Your task to perform on an android device: Search for Mexican restaurants on Maps Image 0: 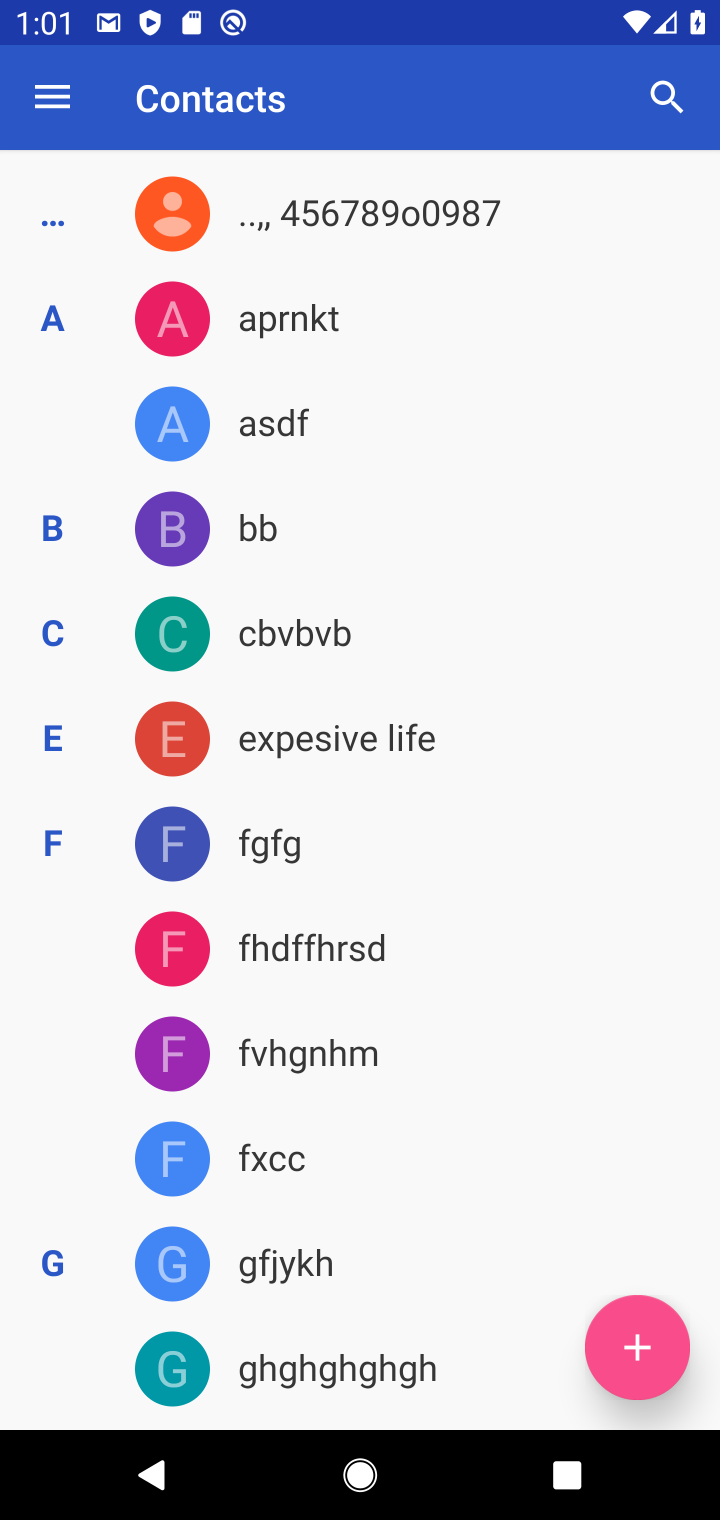
Step 0: press back button
Your task to perform on an android device: Search for Mexican restaurants on Maps Image 1: 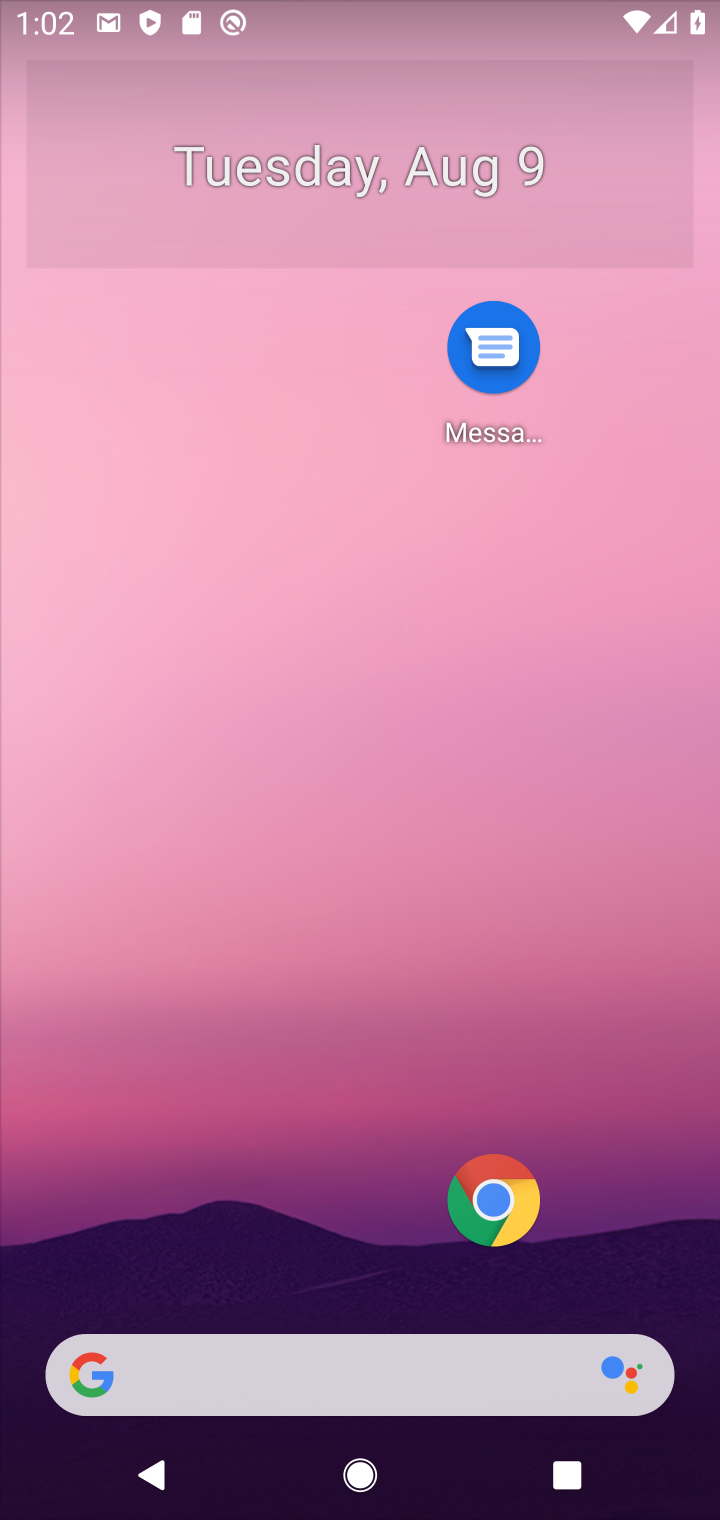
Step 1: drag from (342, 839) to (415, 267)
Your task to perform on an android device: Search for Mexican restaurants on Maps Image 2: 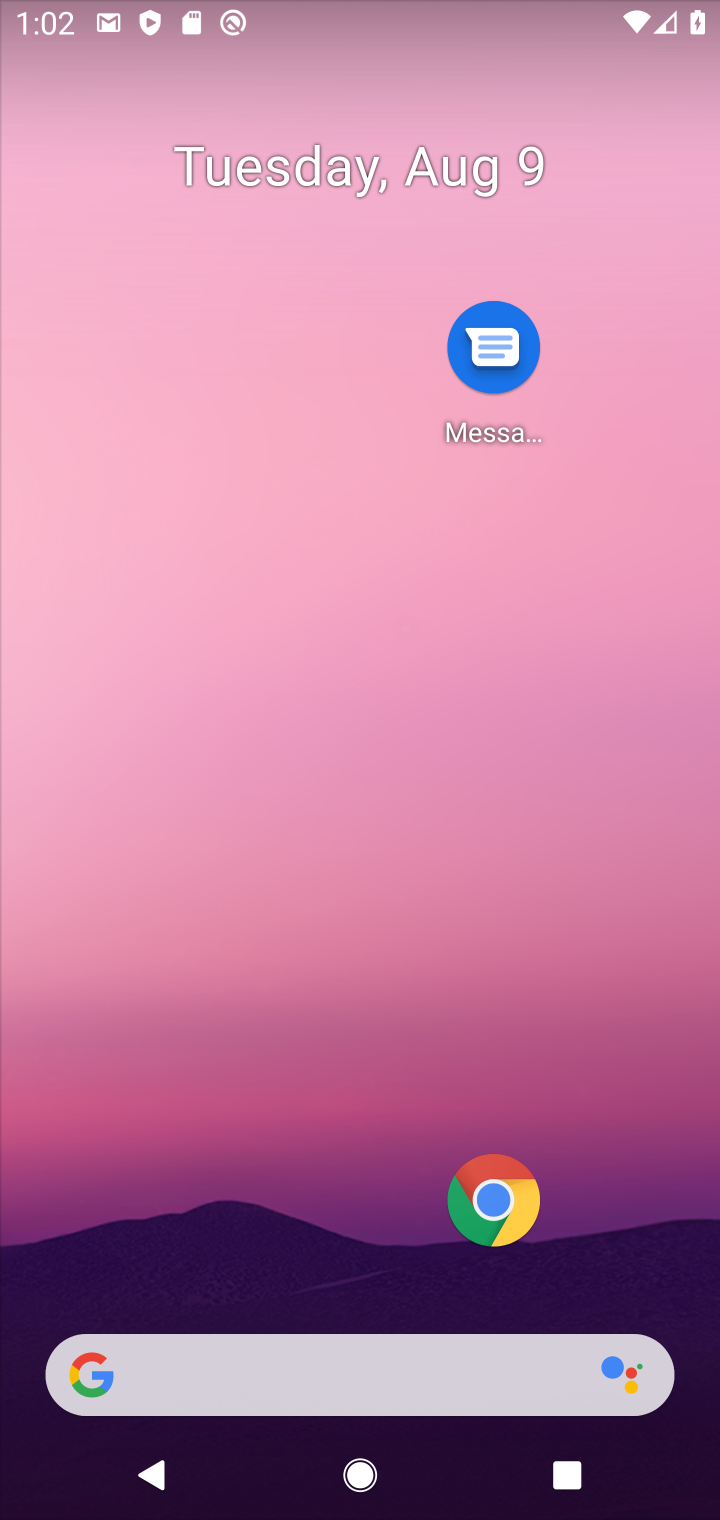
Step 2: drag from (205, 1263) to (321, 208)
Your task to perform on an android device: Search for Mexican restaurants on Maps Image 3: 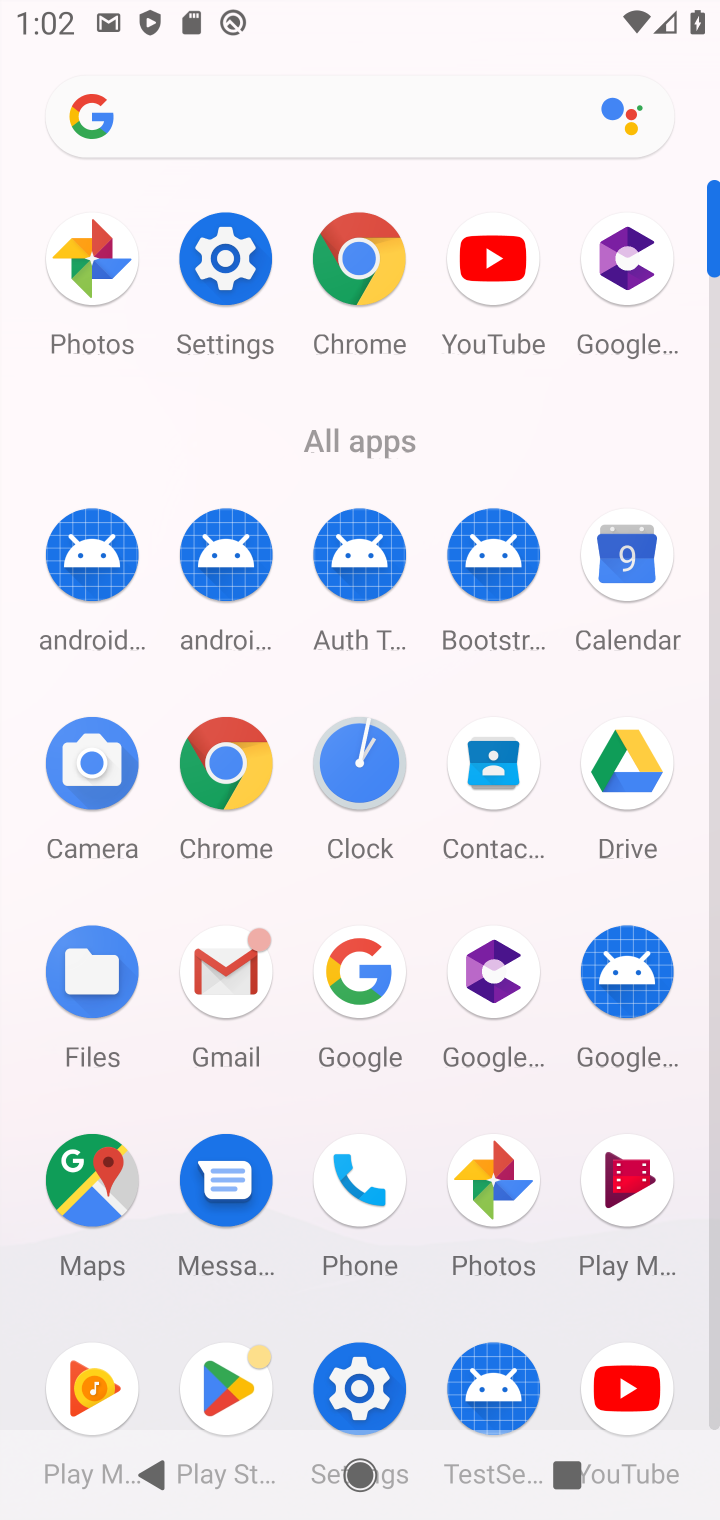
Step 3: click (99, 1161)
Your task to perform on an android device: Search for Mexican restaurants on Maps Image 4: 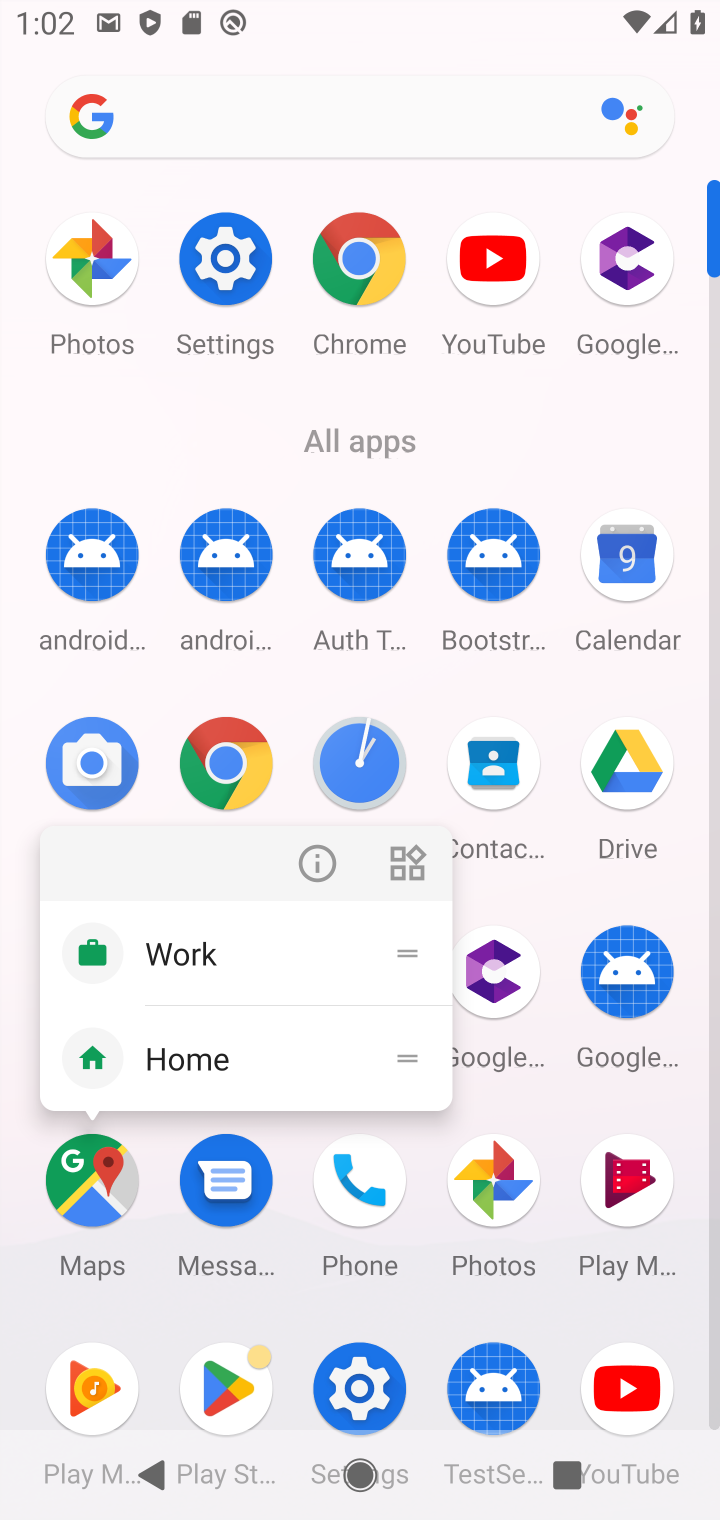
Step 4: click (99, 1188)
Your task to perform on an android device: Search for Mexican restaurants on Maps Image 5: 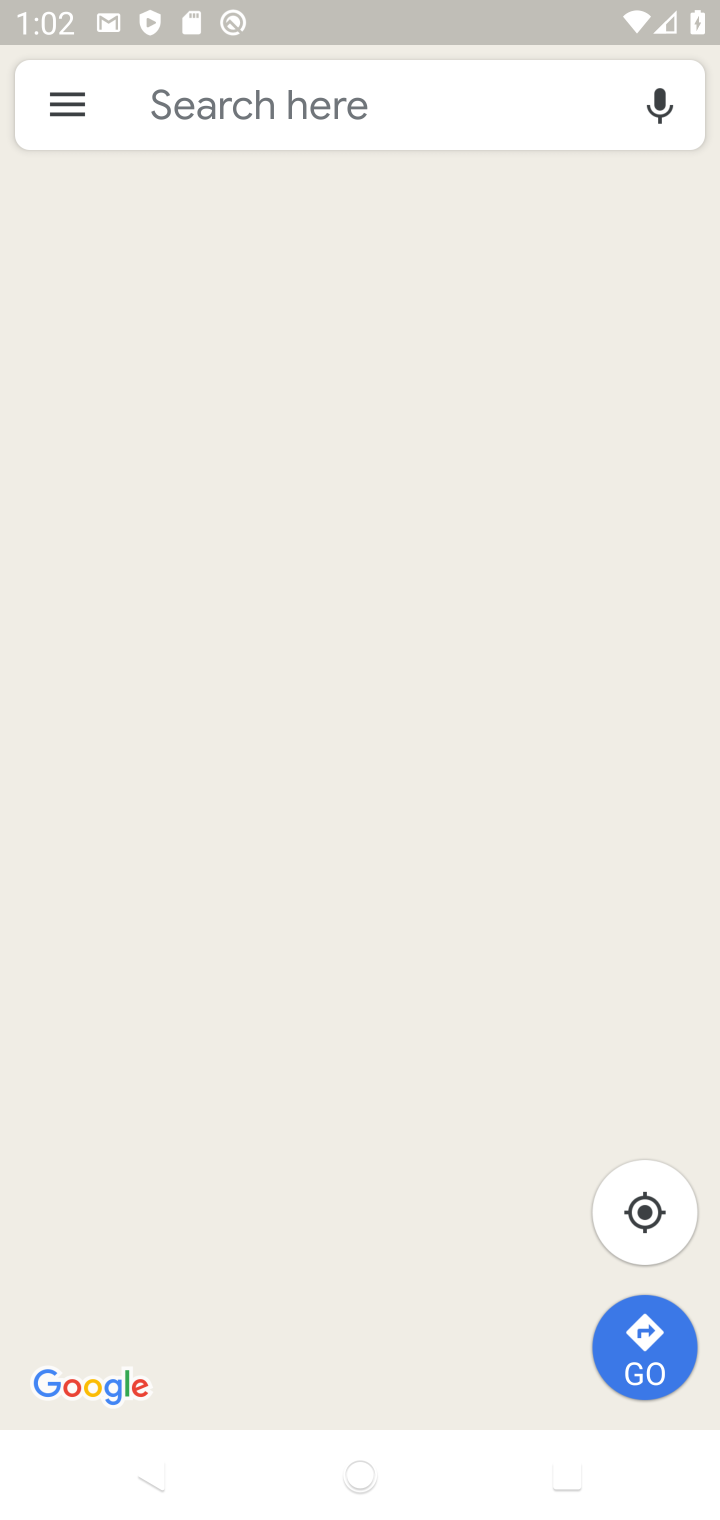
Step 5: click (241, 100)
Your task to perform on an android device: Search for Mexican restaurants on Maps Image 6: 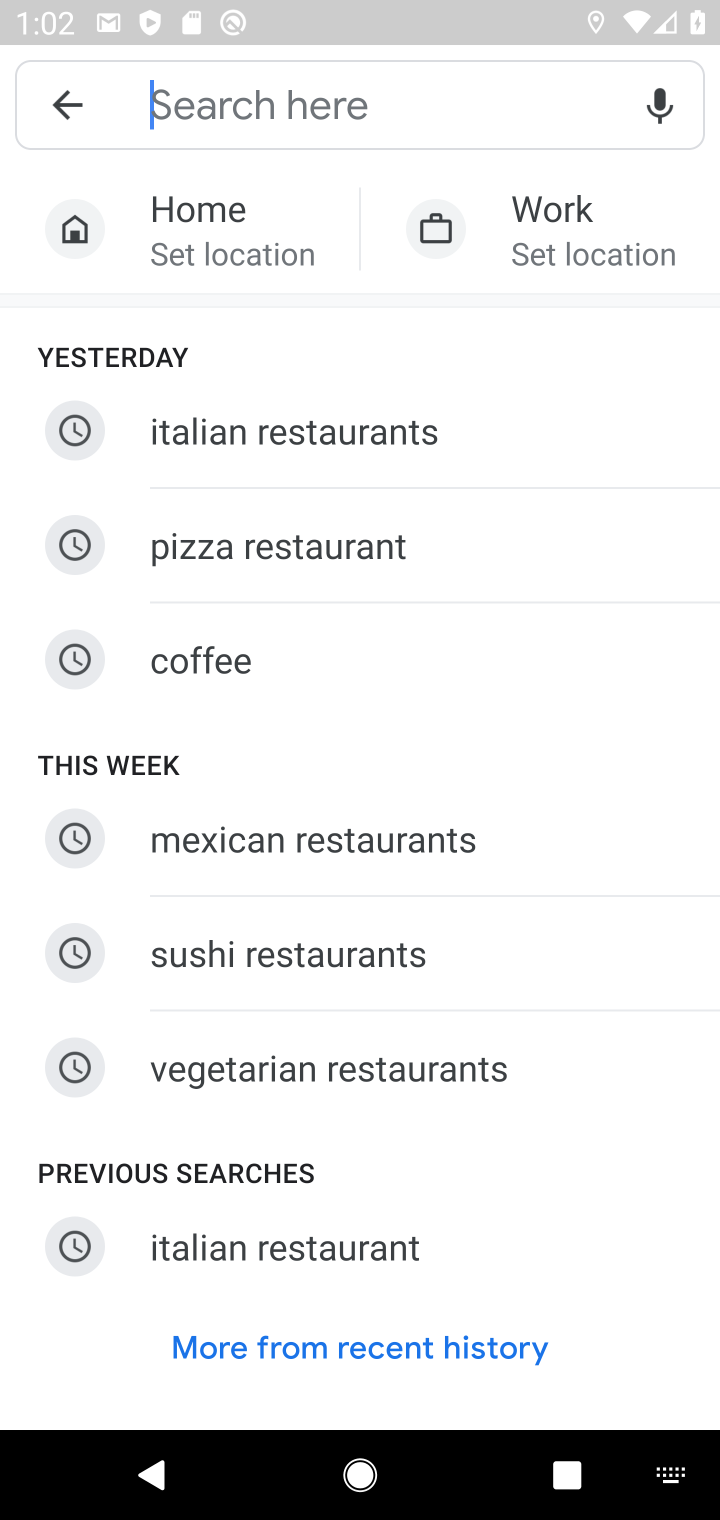
Step 6: type "mexican "
Your task to perform on an android device: Search for Mexican restaurants on Maps Image 7: 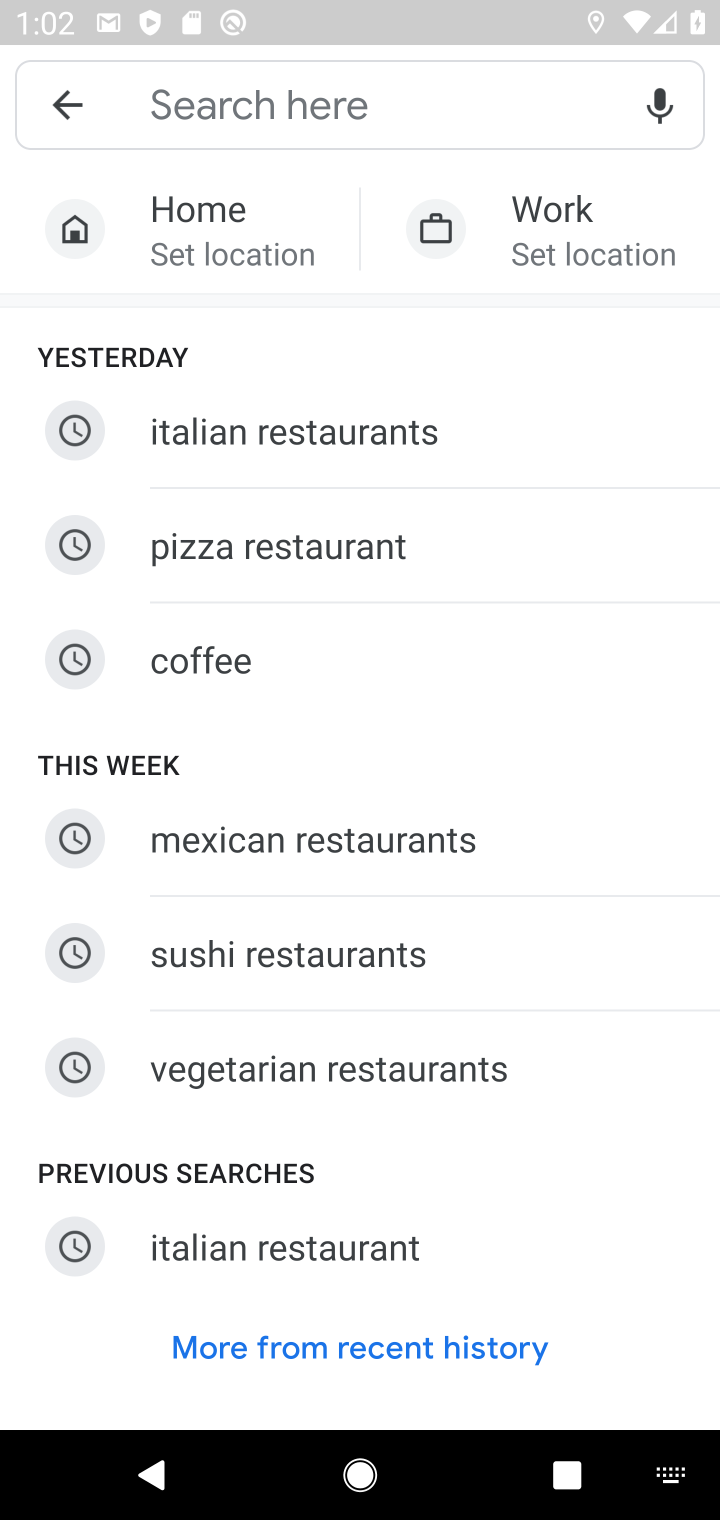
Step 7: click (257, 830)
Your task to perform on an android device: Search for Mexican restaurants on Maps Image 8: 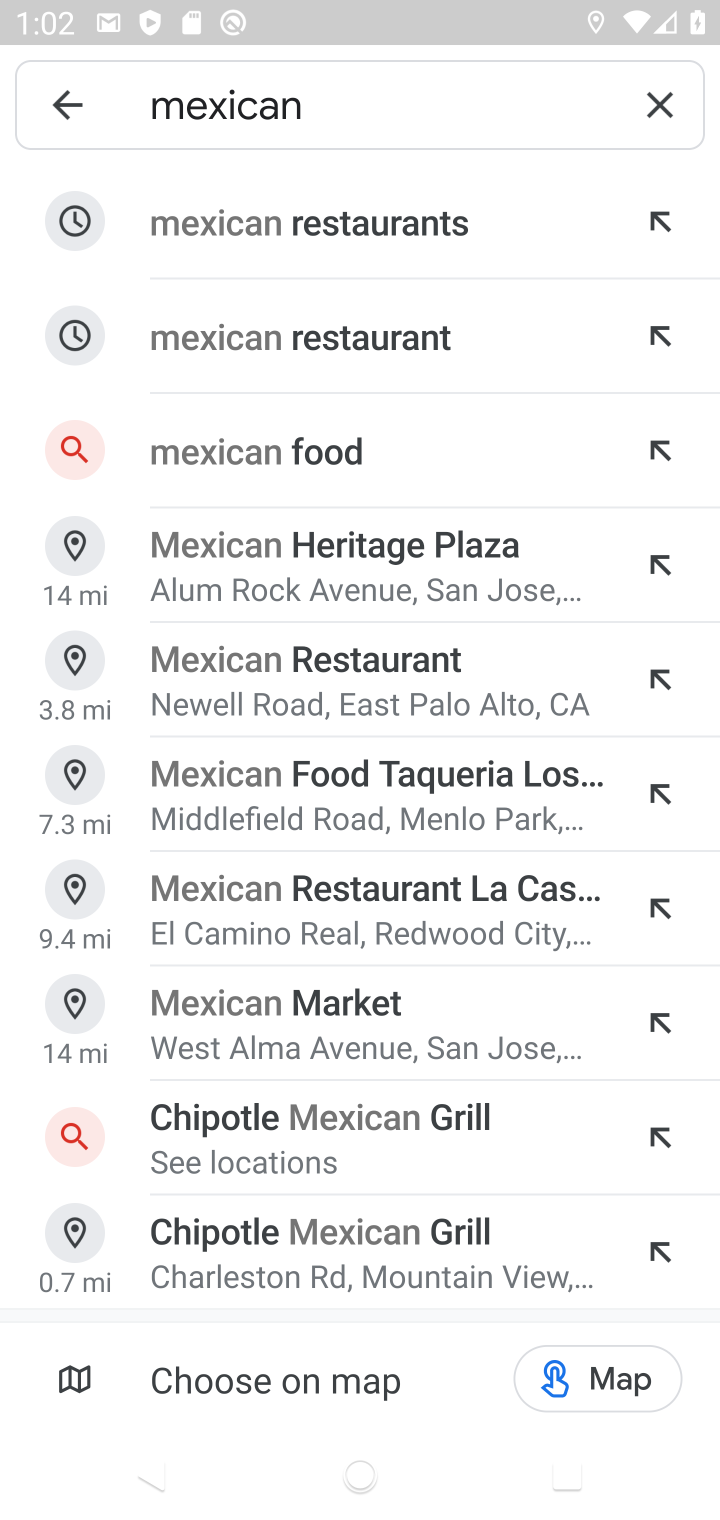
Step 8: click (367, 212)
Your task to perform on an android device: Search for Mexican restaurants on Maps Image 9: 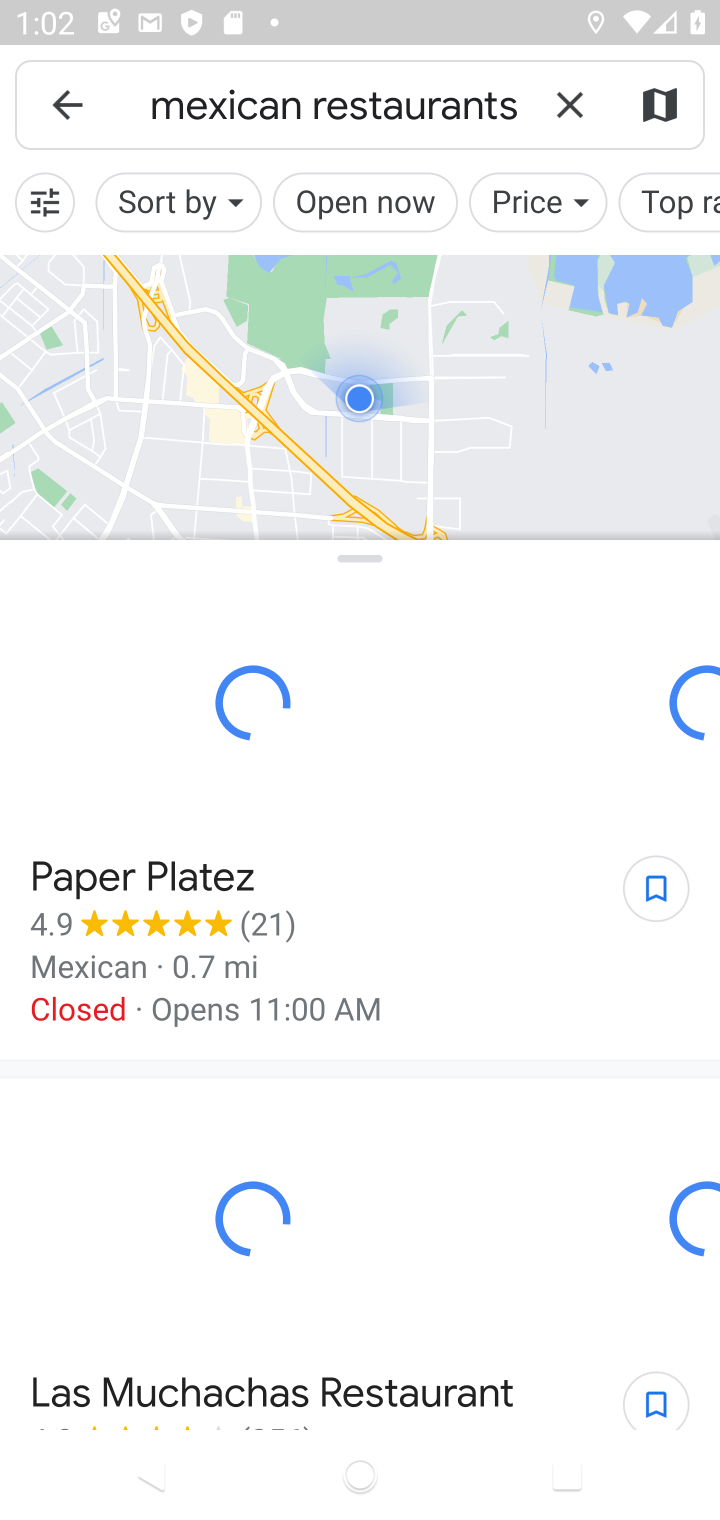
Step 9: task complete